Your task to perform on an android device: Show the shopping cart on costco.com. Search for "usb-b" on costco.com, select the first entry, and add it to the cart. Image 0: 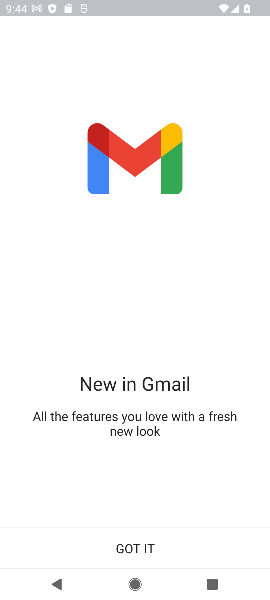
Step 0: task complete